Your task to perform on an android device: Search for vegetarian restaurants on Maps Image 0: 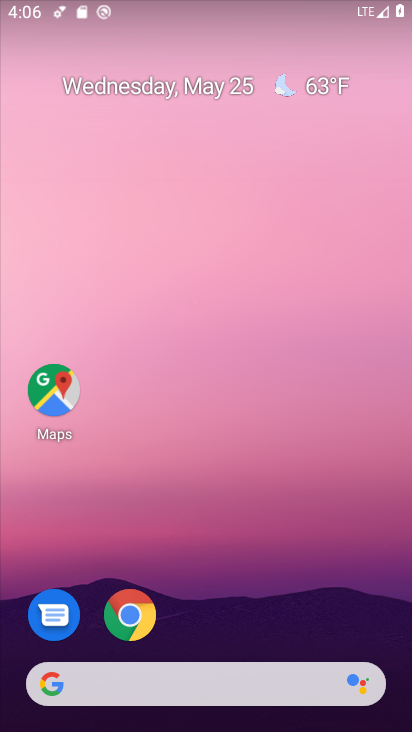
Step 0: click (44, 381)
Your task to perform on an android device: Search for vegetarian restaurants on Maps Image 1: 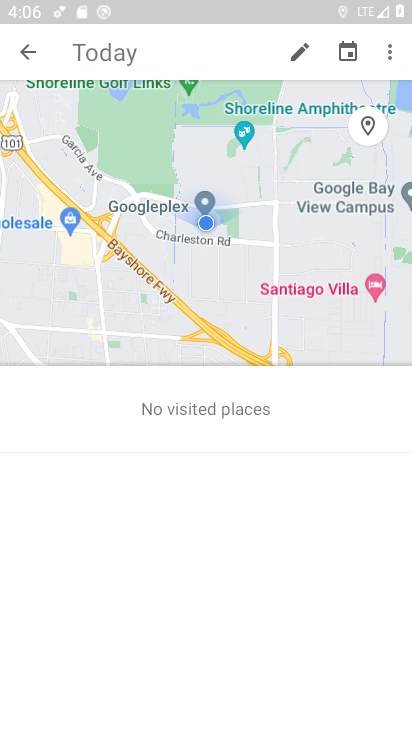
Step 1: click (29, 53)
Your task to perform on an android device: Search for vegetarian restaurants on Maps Image 2: 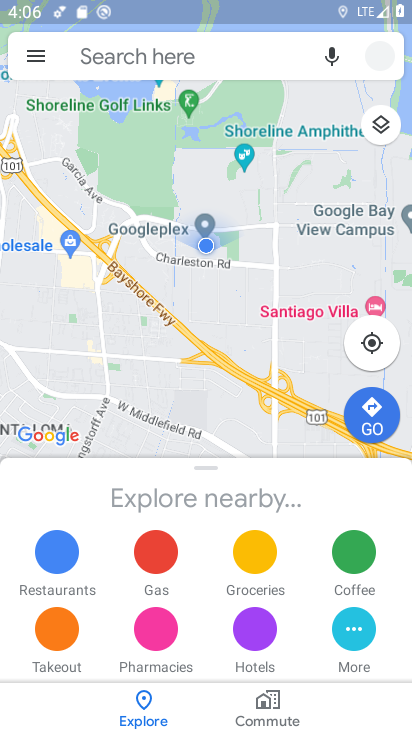
Step 2: click (185, 66)
Your task to perform on an android device: Search for vegetarian restaurants on Maps Image 3: 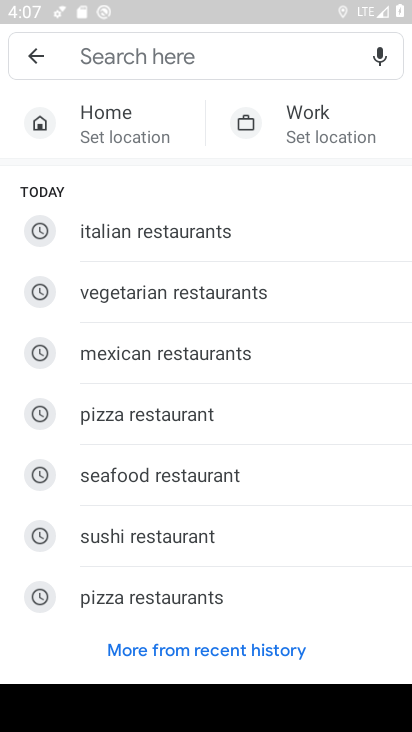
Step 3: click (211, 296)
Your task to perform on an android device: Search for vegetarian restaurants on Maps Image 4: 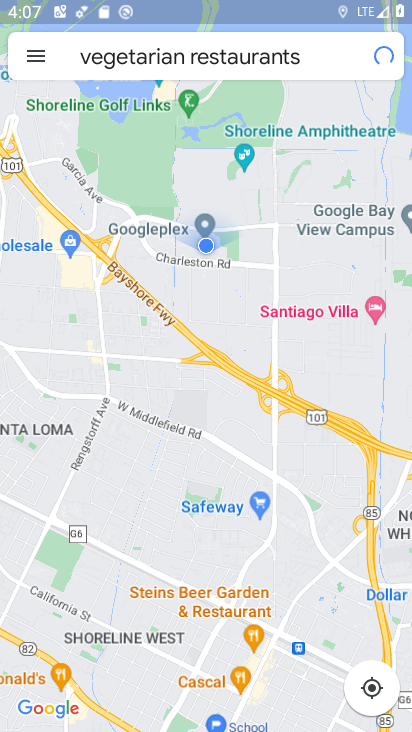
Step 4: task complete